Your task to perform on an android device: When is my next appointment? Image 0: 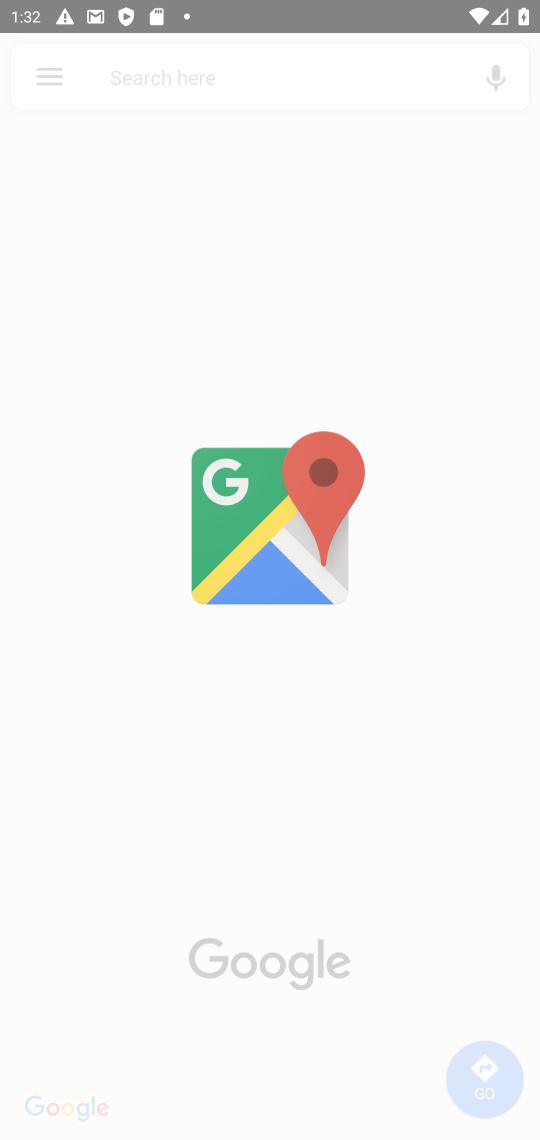
Step 0: press home button
Your task to perform on an android device: When is my next appointment? Image 1: 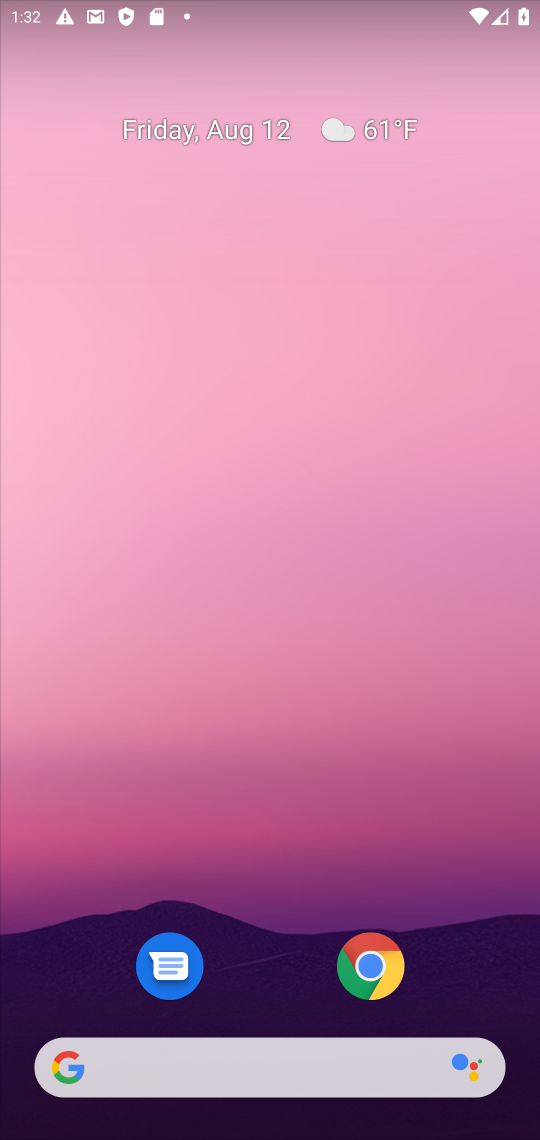
Step 1: drag from (303, 960) to (381, 89)
Your task to perform on an android device: When is my next appointment? Image 2: 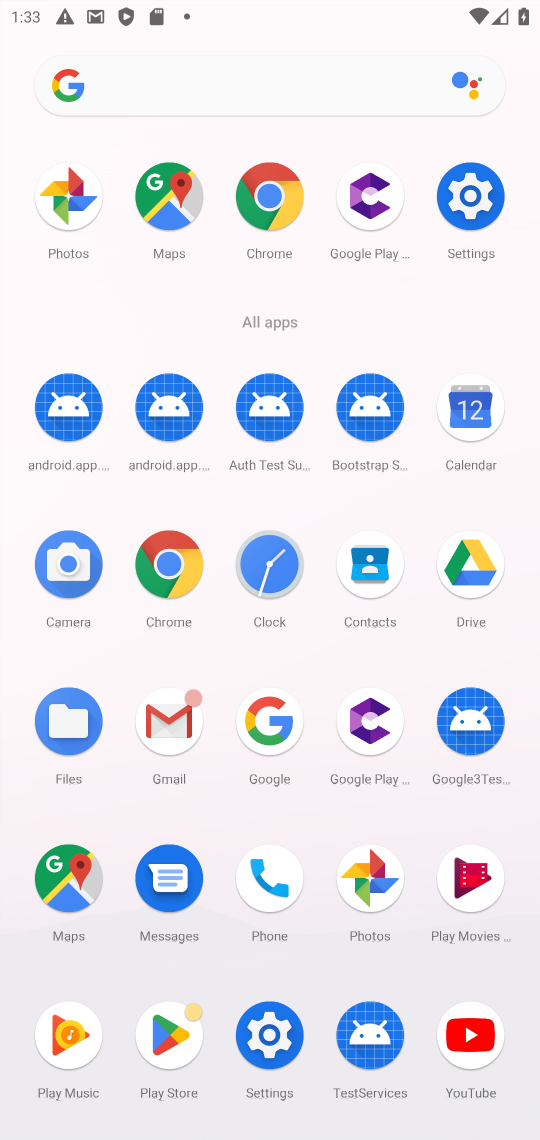
Step 2: click (481, 423)
Your task to perform on an android device: When is my next appointment? Image 3: 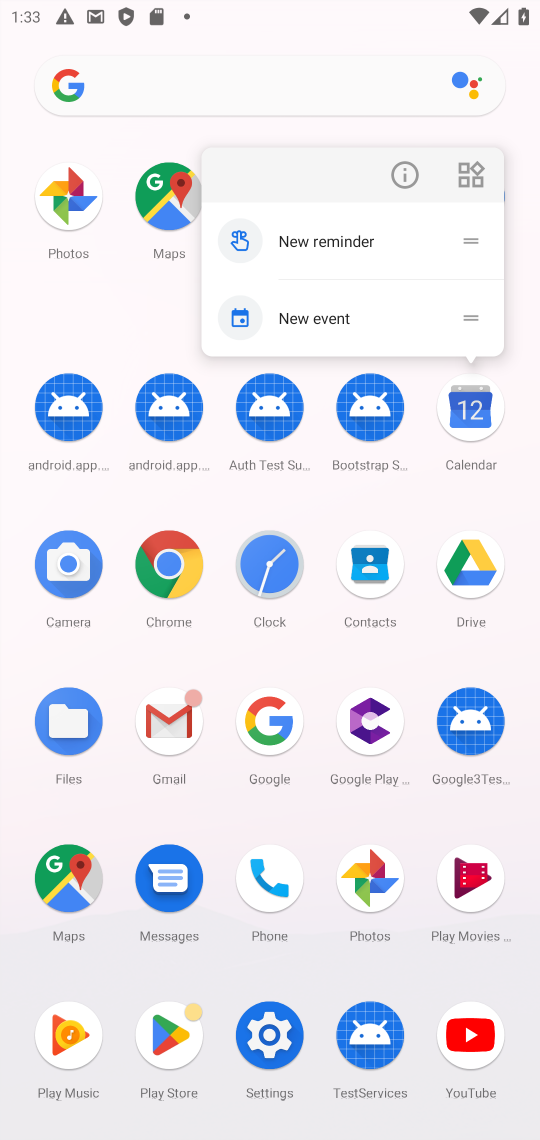
Step 3: click (482, 408)
Your task to perform on an android device: When is my next appointment? Image 4: 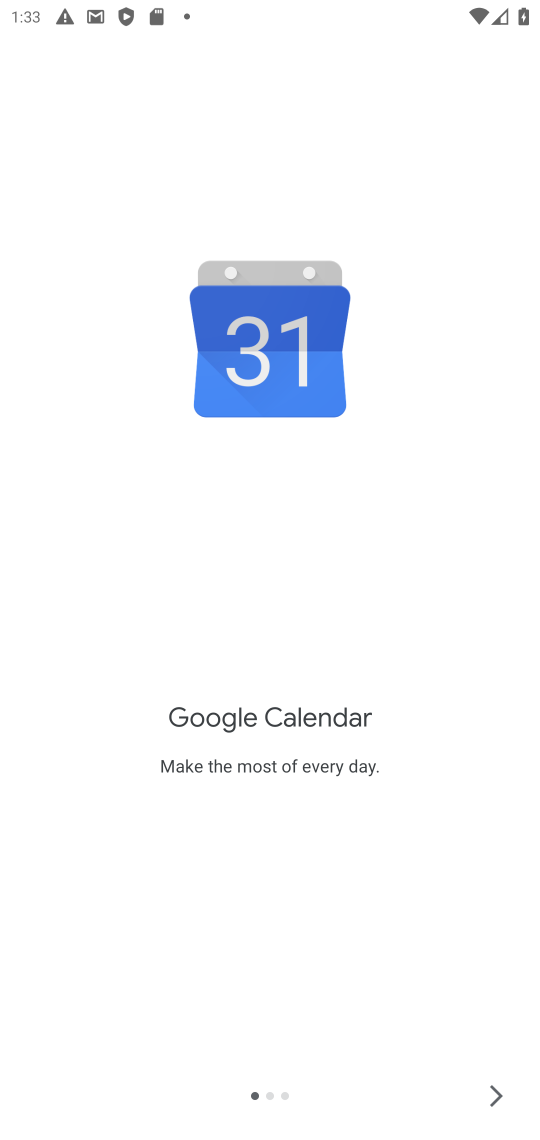
Step 4: click (515, 1108)
Your task to perform on an android device: When is my next appointment? Image 5: 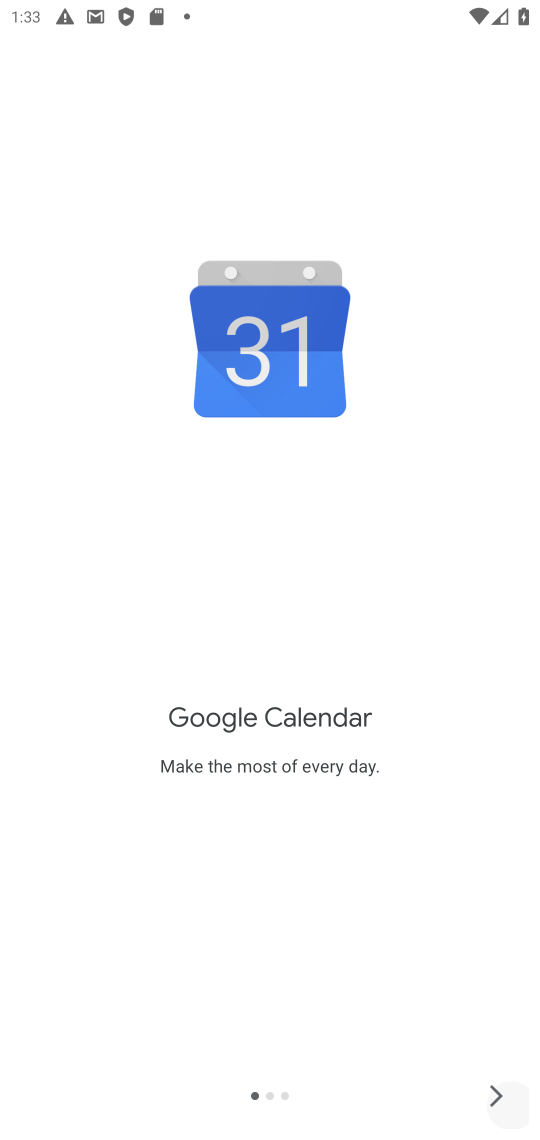
Step 5: click (515, 1104)
Your task to perform on an android device: When is my next appointment? Image 6: 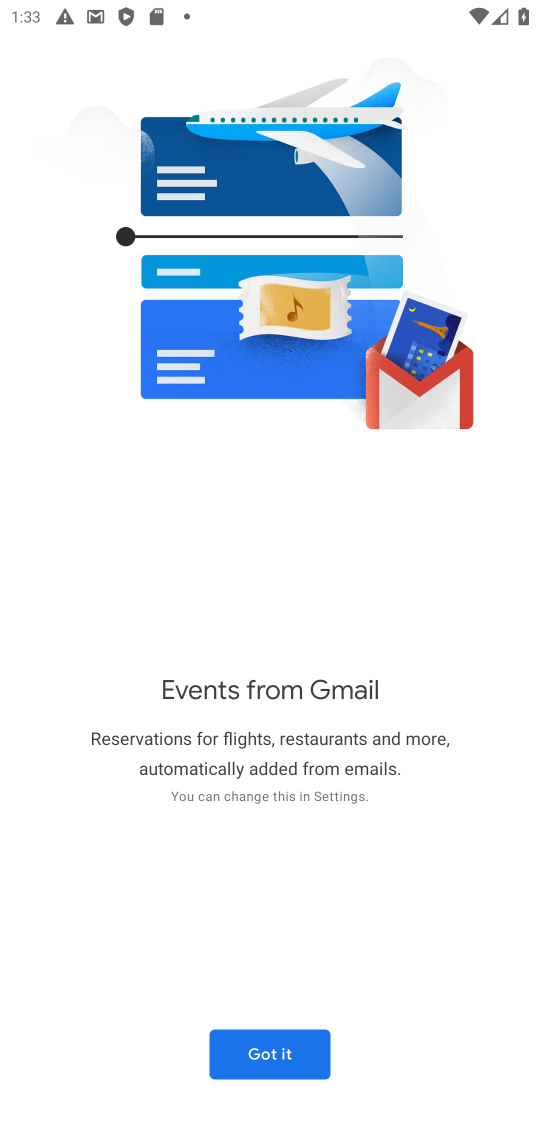
Step 6: click (315, 1067)
Your task to perform on an android device: When is my next appointment? Image 7: 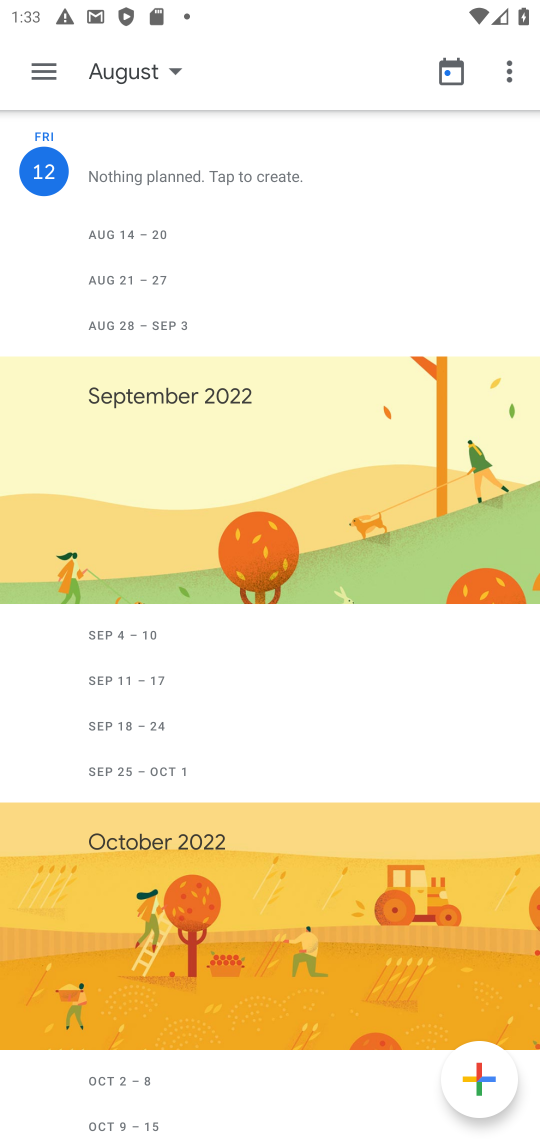
Step 7: click (134, 63)
Your task to perform on an android device: When is my next appointment? Image 8: 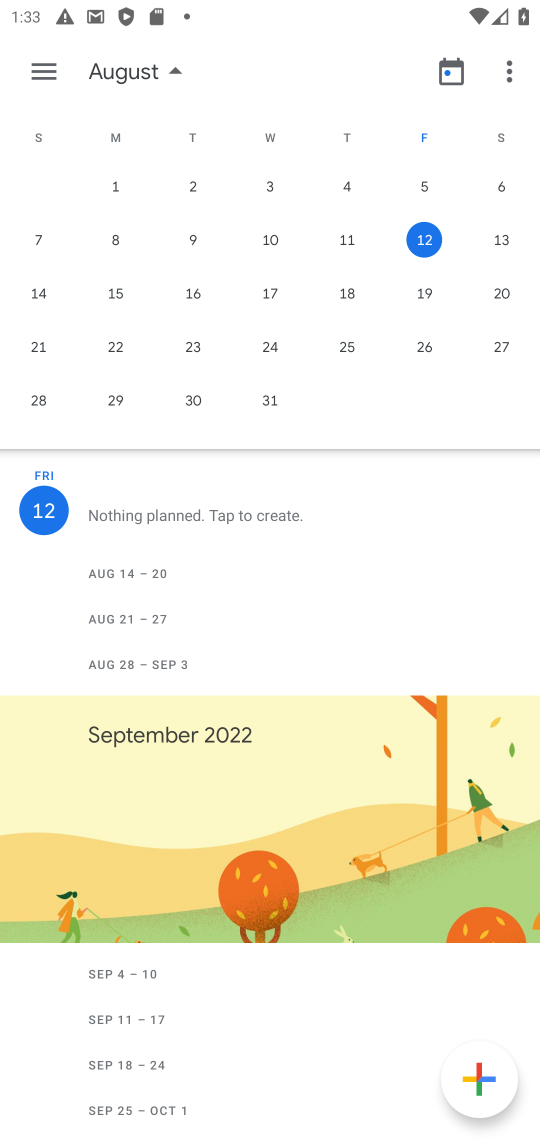
Step 8: drag from (499, 223) to (88, 166)
Your task to perform on an android device: When is my next appointment? Image 9: 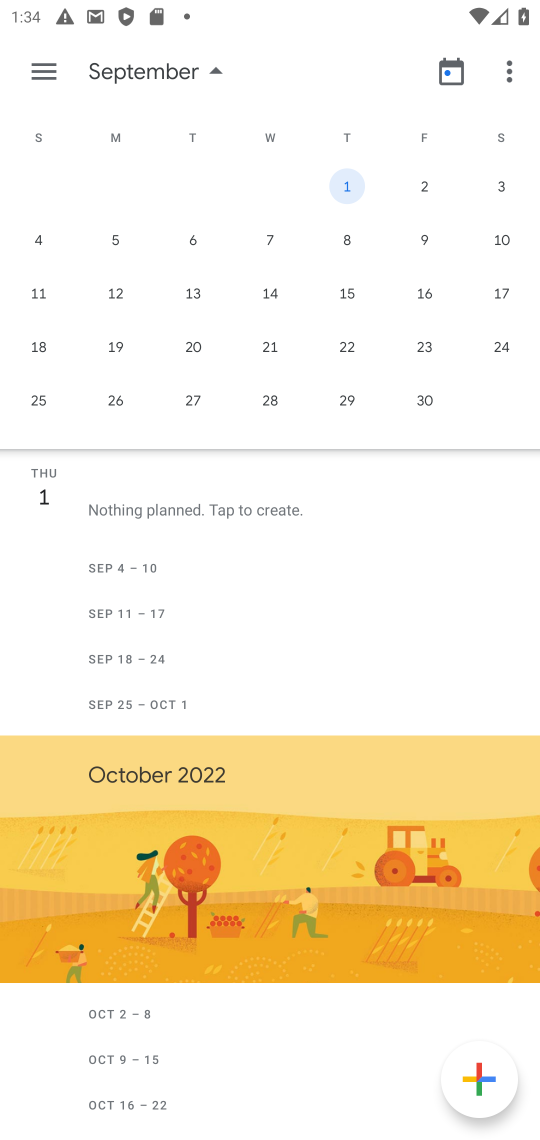
Step 9: drag from (61, 229) to (538, 274)
Your task to perform on an android device: When is my next appointment? Image 10: 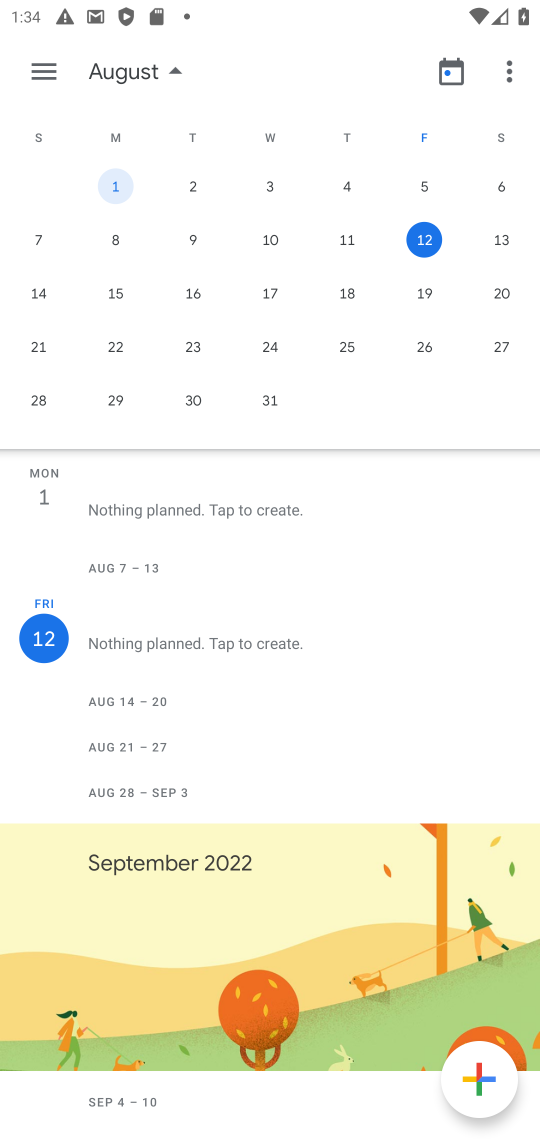
Step 10: click (431, 232)
Your task to perform on an android device: When is my next appointment? Image 11: 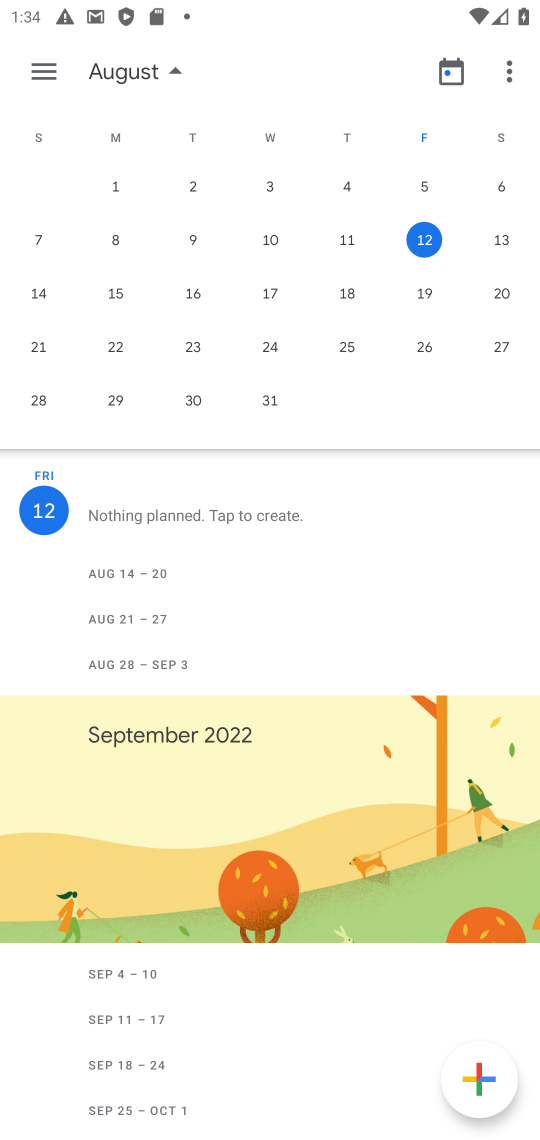
Step 11: click (29, 59)
Your task to perform on an android device: When is my next appointment? Image 12: 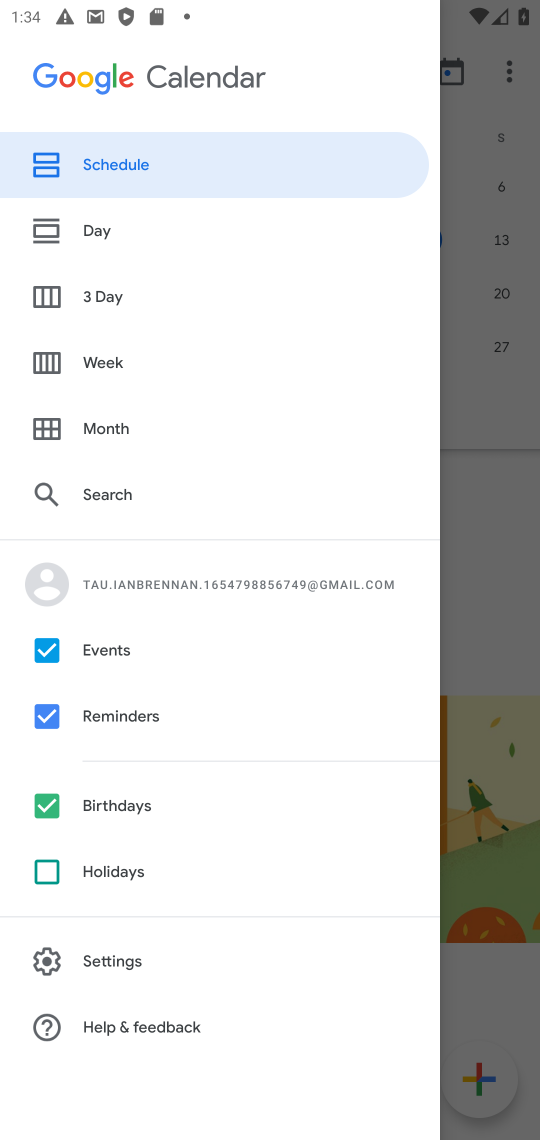
Step 12: click (143, 294)
Your task to perform on an android device: When is my next appointment? Image 13: 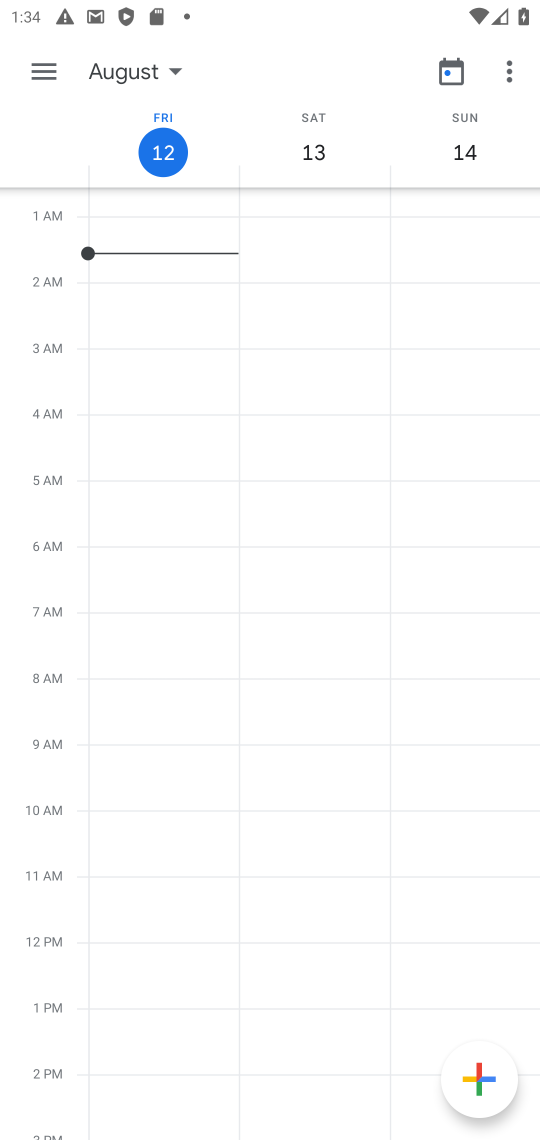
Step 13: task complete